Your task to perform on an android device: Go to Amazon Image 0: 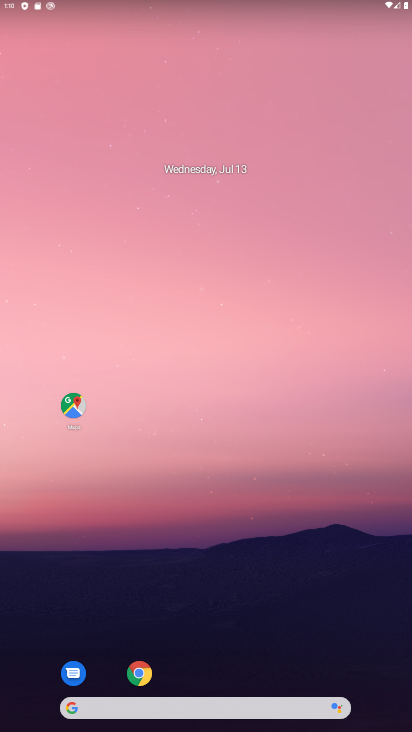
Step 0: click (143, 664)
Your task to perform on an android device: Go to Amazon Image 1: 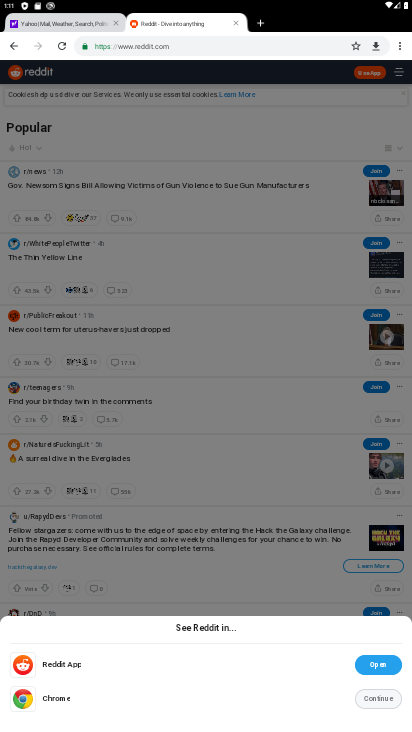
Step 1: click (256, 22)
Your task to perform on an android device: Go to Amazon Image 2: 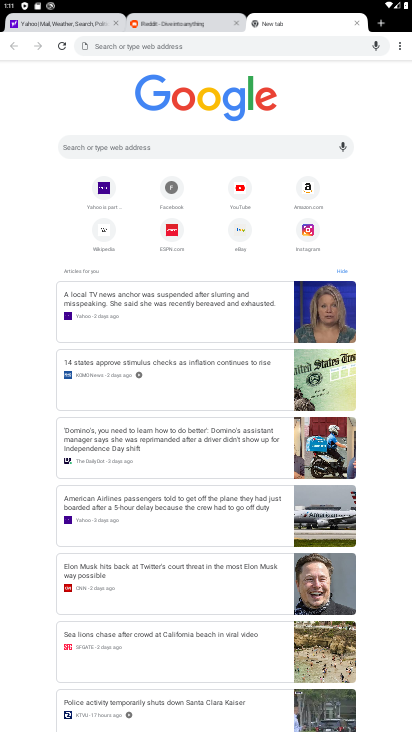
Step 2: click (311, 183)
Your task to perform on an android device: Go to Amazon Image 3: 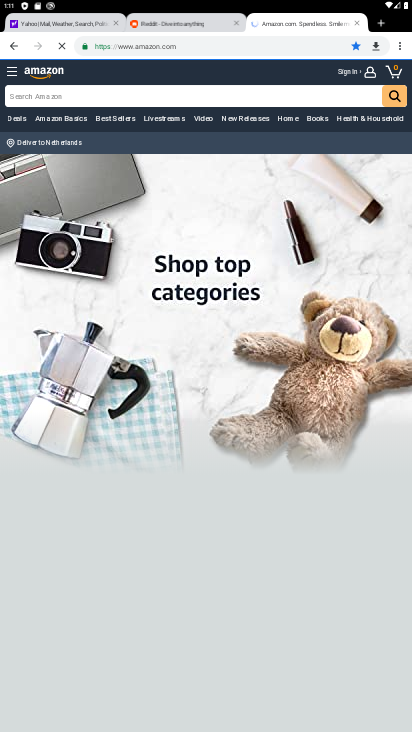
Step 3: task complete